Your task to perform on an android device: empty trash in google photos Image 0: 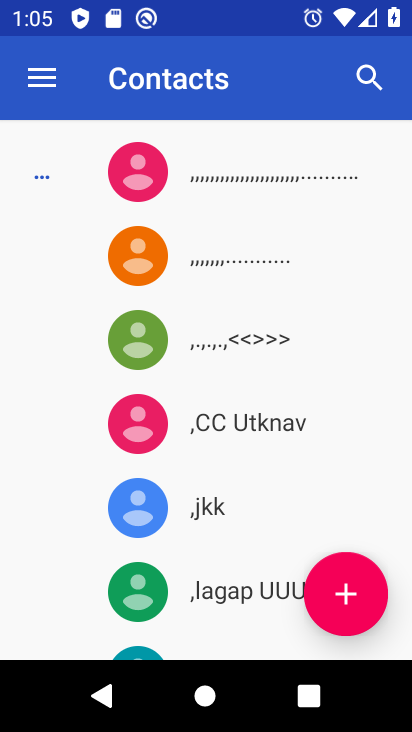
Step 0: press home button
Your task to perform on an android device: empty trash in google photos Image 1: 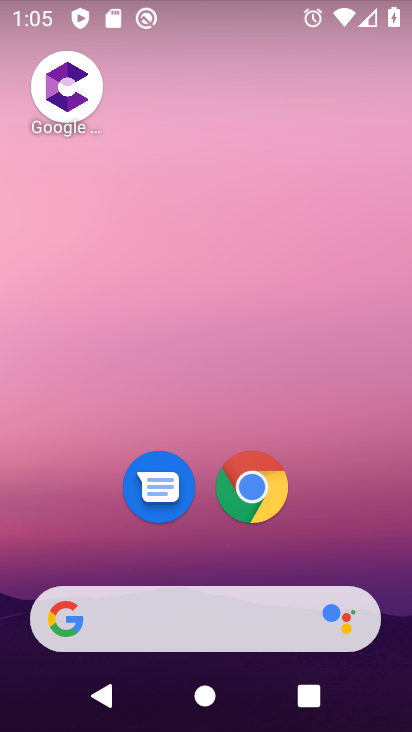
Step 1: drag from (349, 520) to (142, 139)
Your task to perform on an android device: empty trash in google photos Image 2: 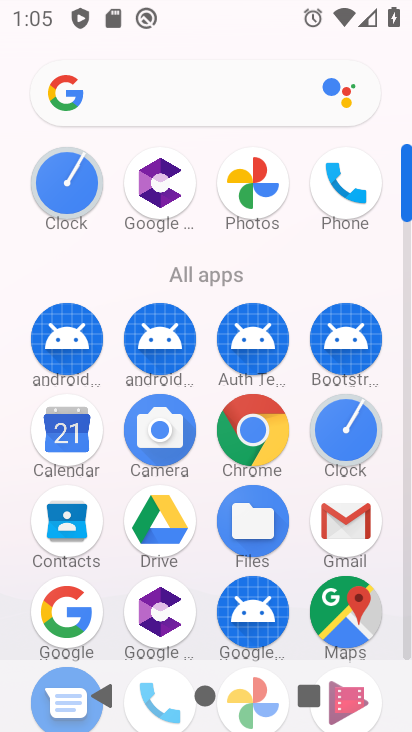
Step 2: click (260, 169)
Your task to perform on an android device: empty trash in google photos Image 3: 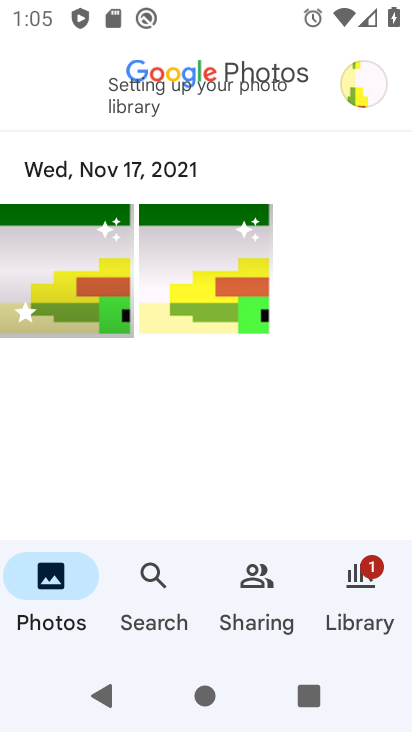
Step 3: click (348, 88)
Your task to perform on an android device: empty trash in google photos Image 4: 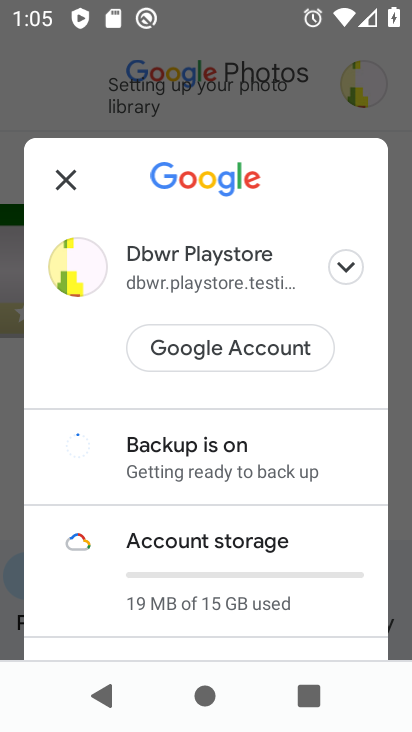
Step 4: click (253, 106)
Your task to perform on an android device: empty trash in google photos Image 5: 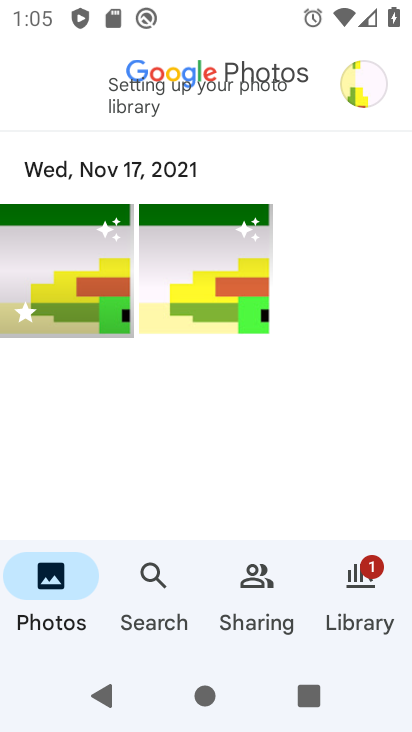
Step 5: click (258, 583)
Your task to perform on an android device: empty trash in google photos Image 6: 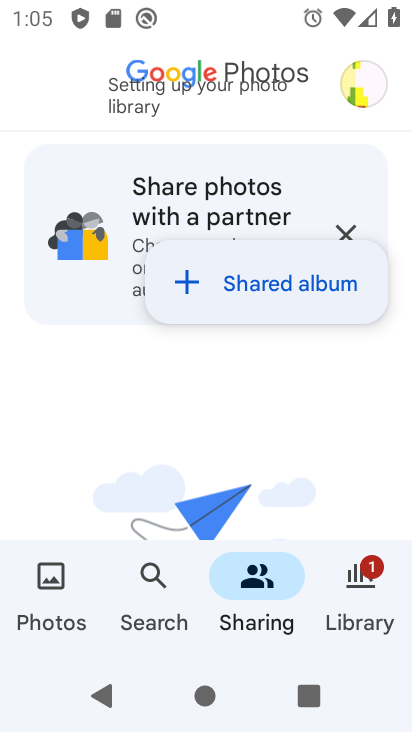
Step 6: click (363, 578)
Your task to perform on an android device: empty trash in google photos Image 7: 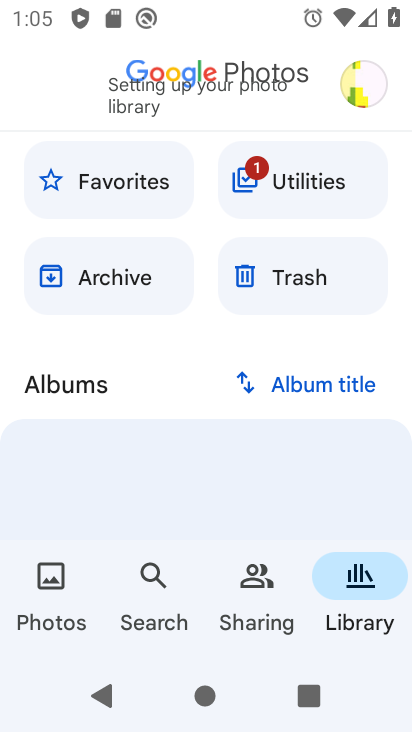
Step 7: click (283, 277)
Your task to perform on an android device: empty trash in google photos Image 8: 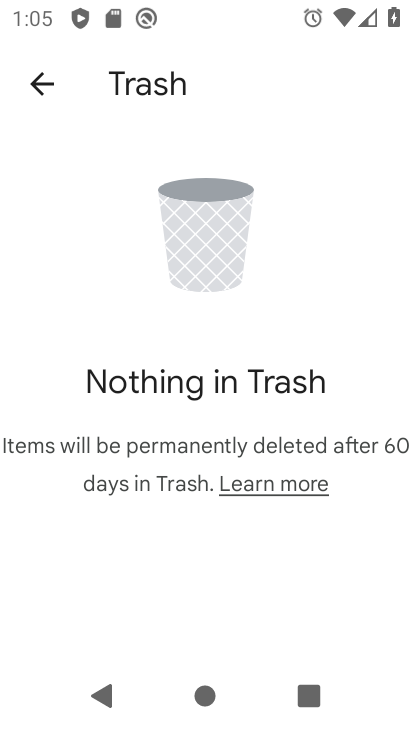
Step 8: task complete